Your task to perform on an android device: Is it going to rain today? Image 0: 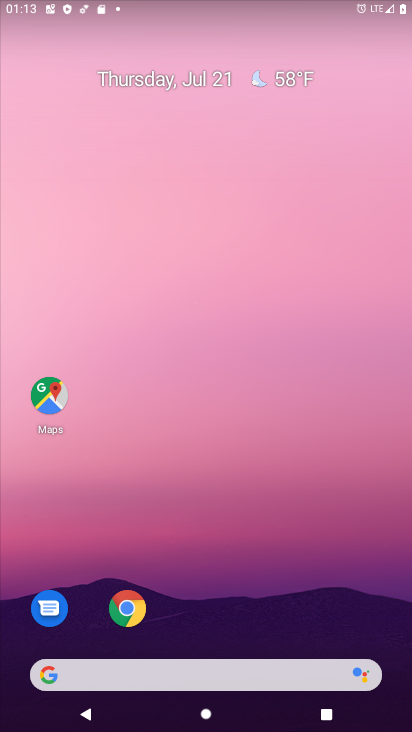
Step 0: press home button
Your task to perform on an android device: Is it going to rain today? Image 1: 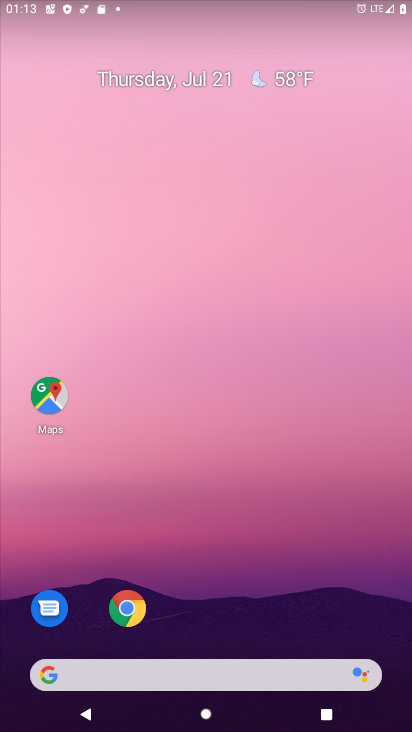
Step 1: click (286, 77)
Your task to perform on an android device: Is it going to rain today? Image 2: 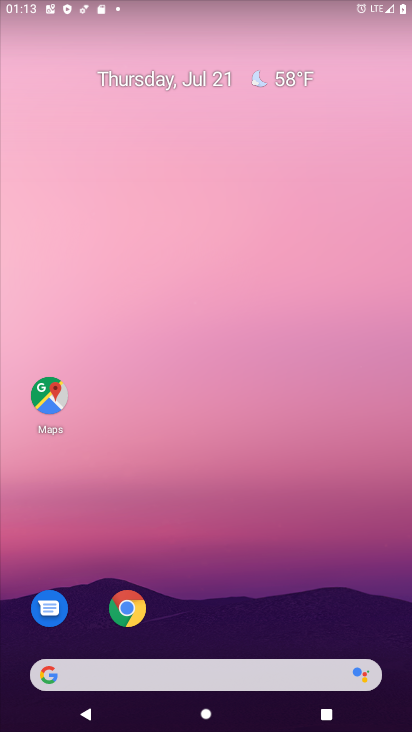
Step 2: click (281, 74)
Your task to perform on an android device: Is it going to rain today? Image 3: 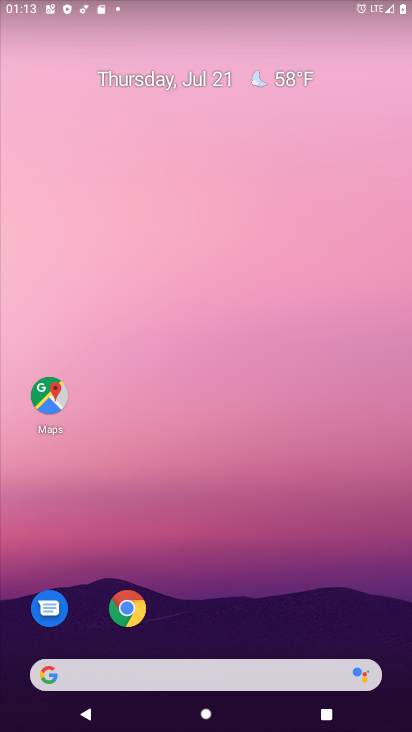
Step 3: click (285, 75)
Your task to perform on an android device: Is it going to rain today? Image 4: 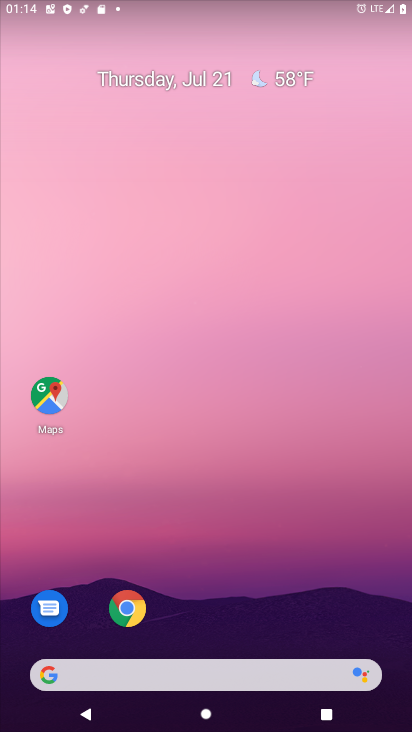
Step 4: click (282, 71)
Your task to perform on an android device: Is it going to rain today? Image 5: 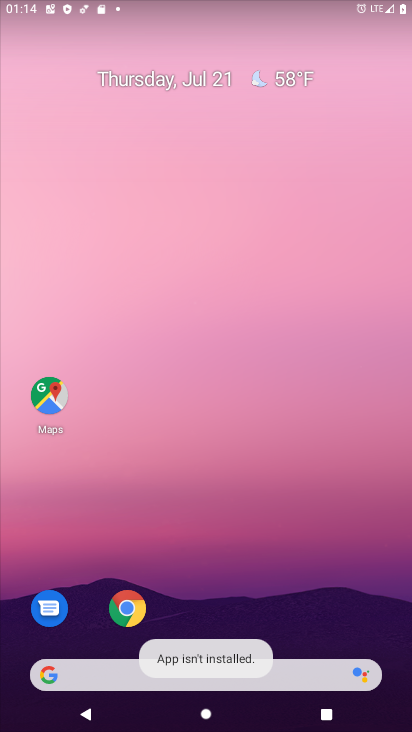
Step 5: click (257, 79)
Your task to perform on an android device: Is it going to rain today? Image 6: 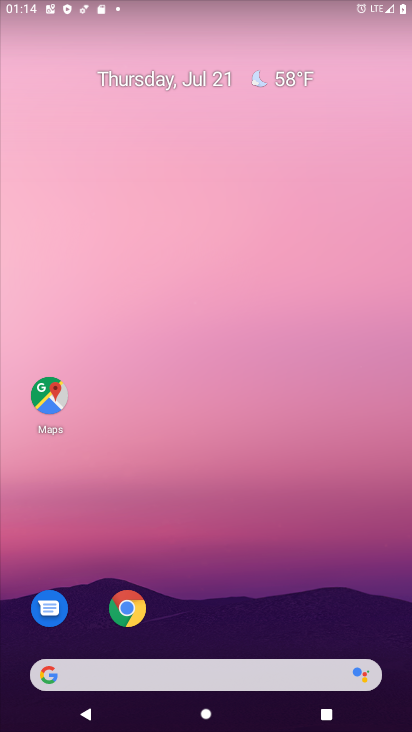
Step 6: click (117, 670)
Your task to perform on an android device: Is it going to rain today? Image 7: 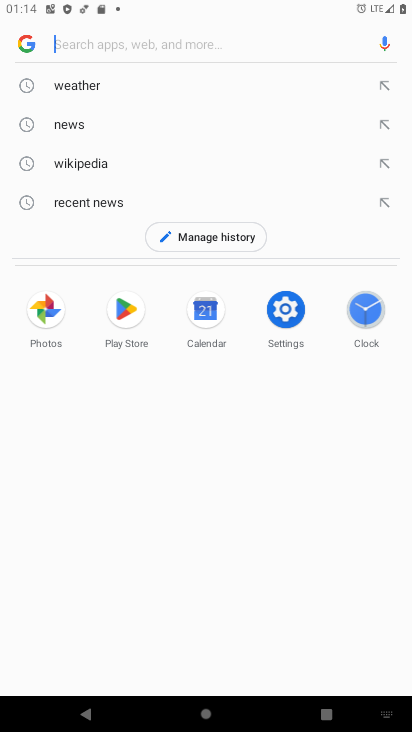
Step 7: type "Is it going to rain today?"
Your task to perform on an android device: Is it going to rain today? Image 8: 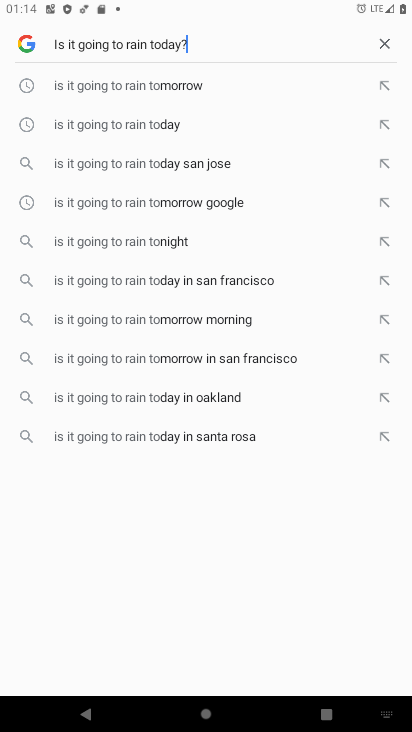
Step 8: type ""
Your task to perform on an android device: Is it going to rain today? Image 9: 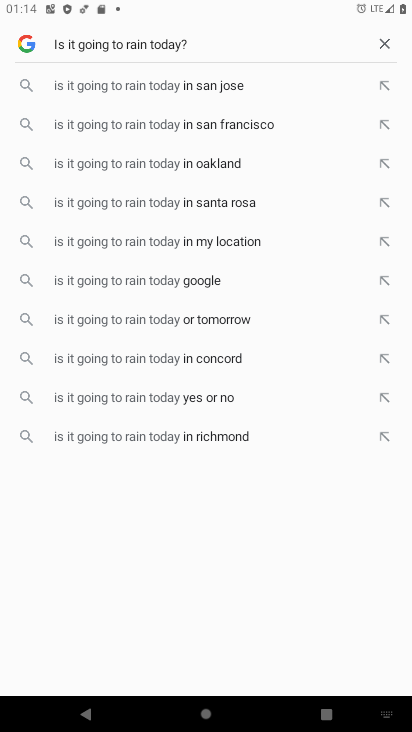
Step 9: click (180, 285)
Your task to perform on an android device: Is it going to rain today? Image 10: 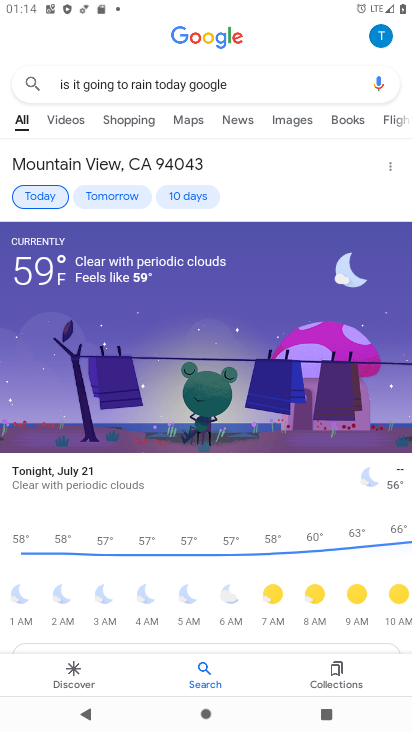
Step 10: task complete